Your task to perform on an android device: Open internet settings Image 0: 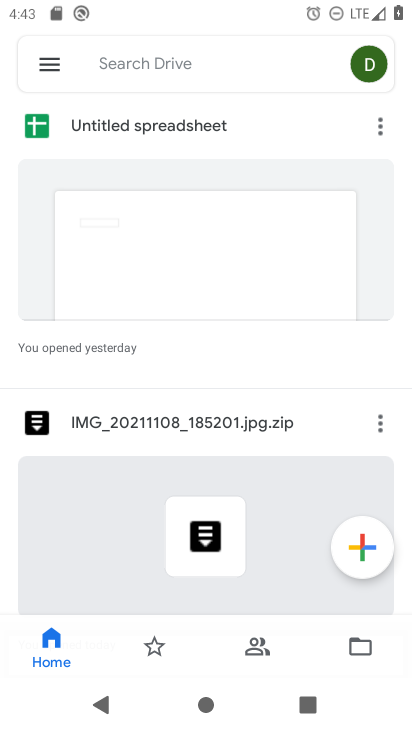
Step 0: press home button
Your task to perform on an android device: Open internet settings Image 1: 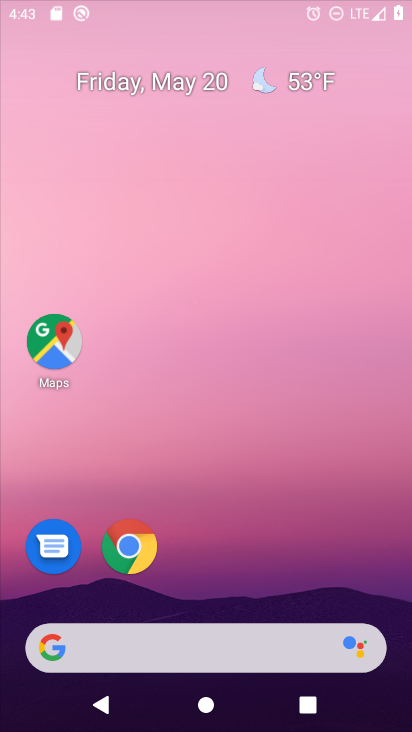
Step 1: drag from (254, 556) to (298, 118)
Your task to perform on an android device: Open internet settings Image 2: 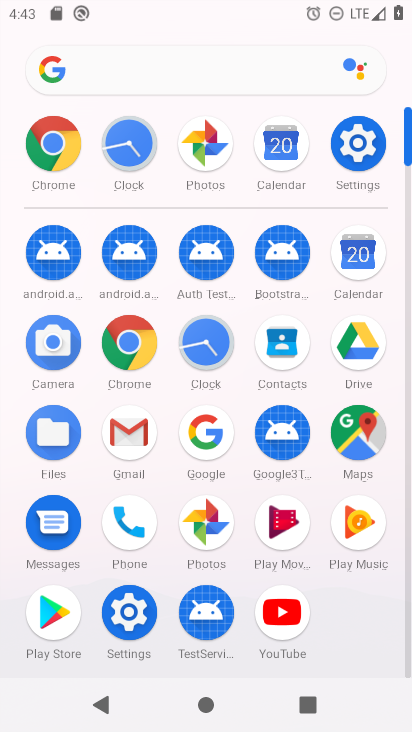
Step 2: click (352, 141)
Your task to perform on an android device: Open internet settings Image 3: 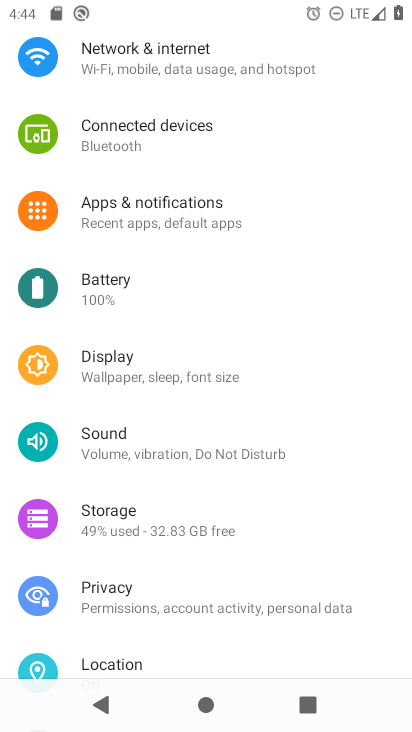
Step 3: drag from (172, 228) to (181, 623)
Your task to perform on an android device: Open internet settings Image 4: 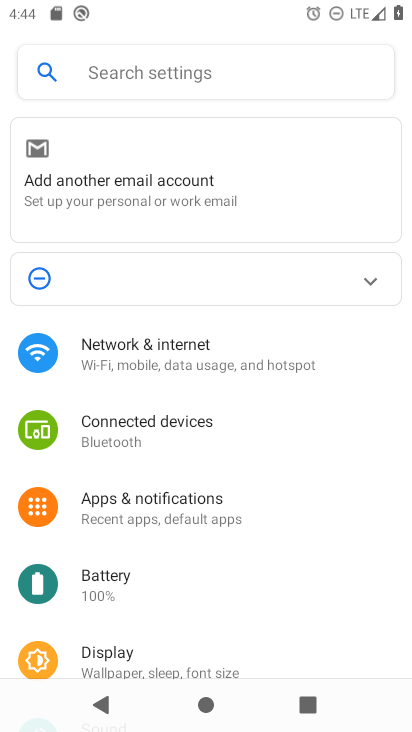
Step 4: click (175, 374)
Your task to perform on an android device: Open internet settings Image 5: 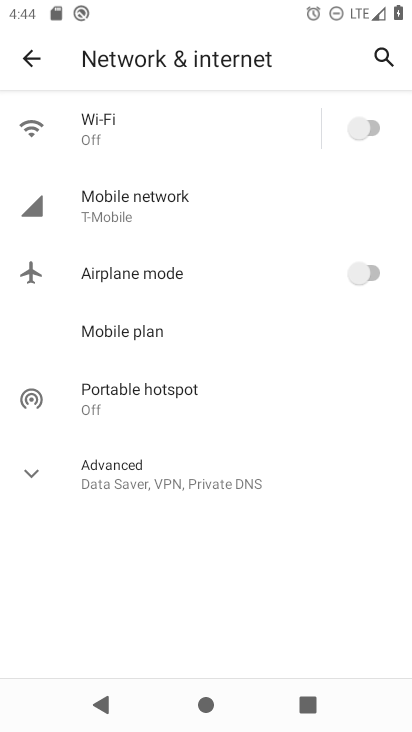
Step 5: click (116, 493)
Your task to perform on an android device: Open internet settings Image 6: 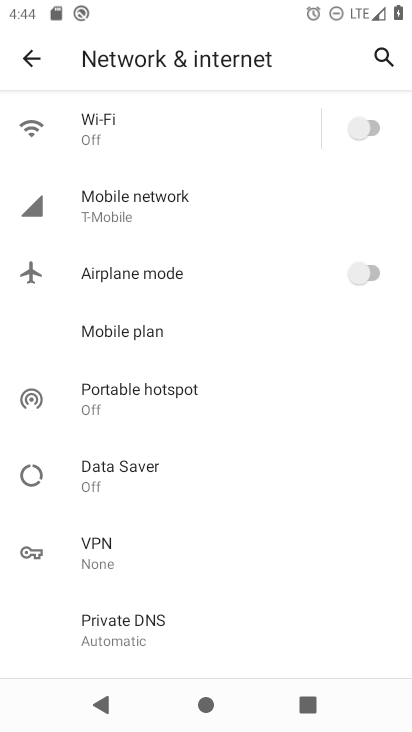
Step 6: task complete